Your task to perform on an android device: choose inbox layout in the gmail app Image 0: 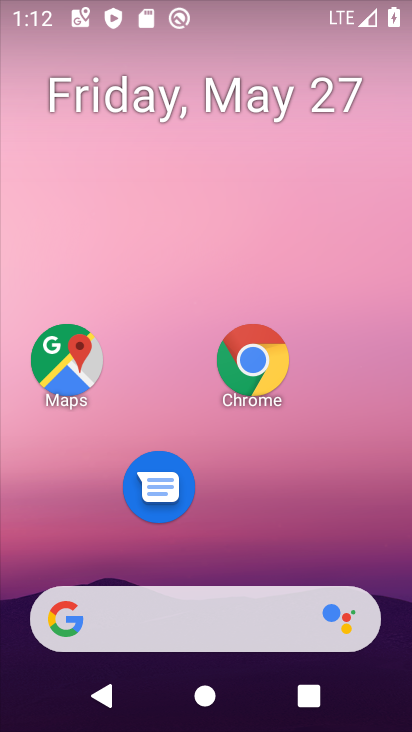
Step 0: drag from (270, 523) to (313, 73)
Your task to perform on an android device: choose inbox layout in the gmail app Image 1: 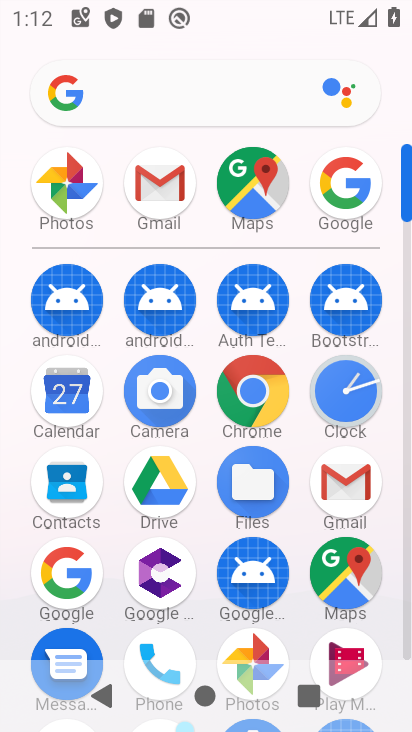
Step 1: click (160, 186)
Your task to perform on an android device: choose inbox layout in the gmail app Image 2: 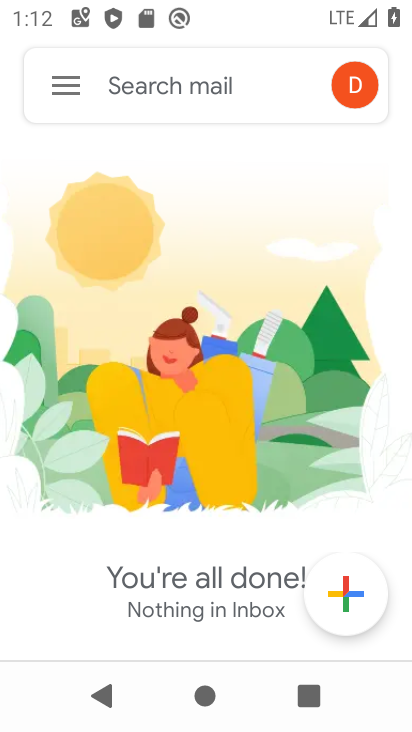
Step 2: click (60, 83)
Your task to perform on an android device: choose inbox layout in the gmail app Image 3: 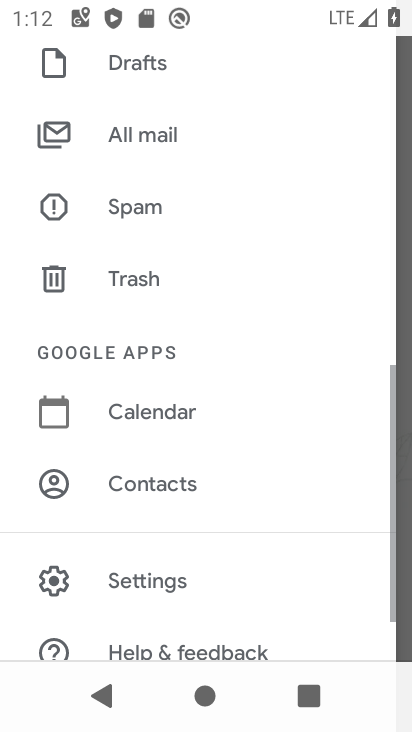
Step 3: click (136, 577)
Your task to perform on an android device: choose inbox layout in the gmail app Image 4: 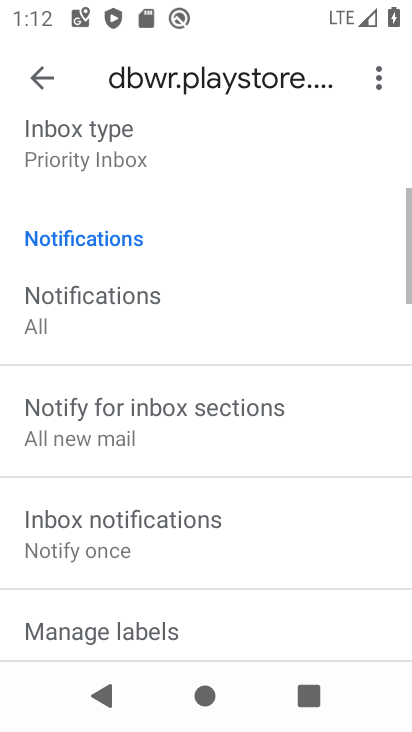
Step 4: click (195, 334)
Your task to perform on an android device: choose inbox layout in the gmail app Image 5: 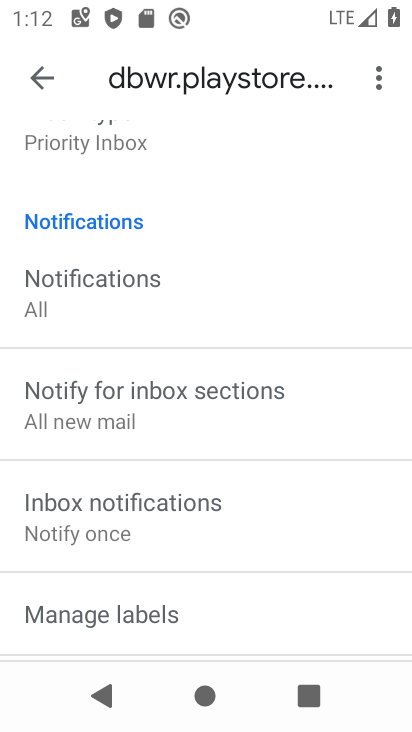
Step 5: drag from (130, 182) to (166, 446)
Your task to perform on an android device: choose inbox layout in the gmail app Image 6: 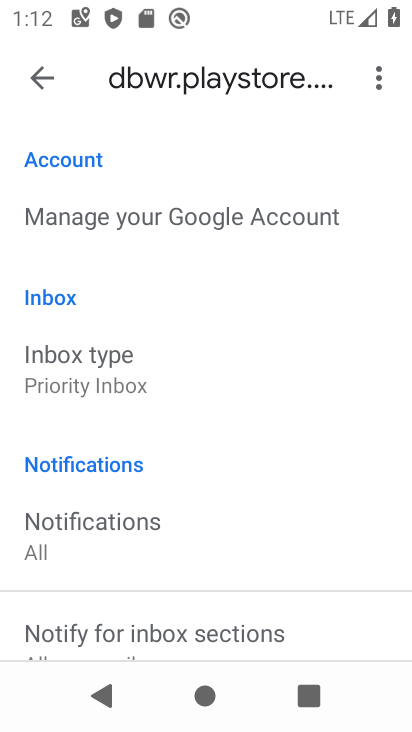
Step 6: click (103, 389)
Your task to perform on an android device: choose inbox layout in the gmail app Image 7: 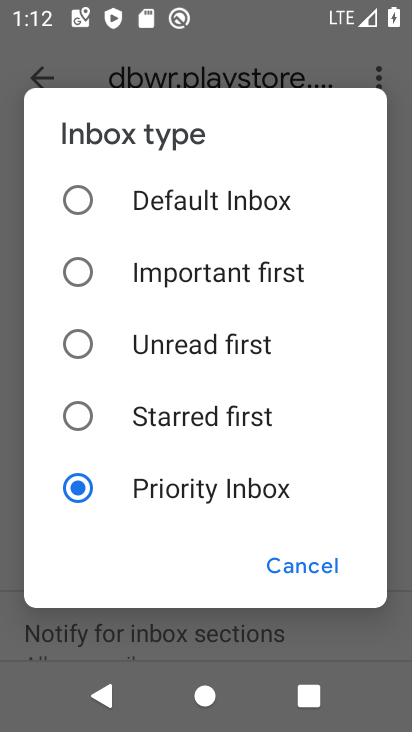
Step 7: click (96, 202)
Your task to perform on an android device: choose inbox layout in the gmail app Image 8: 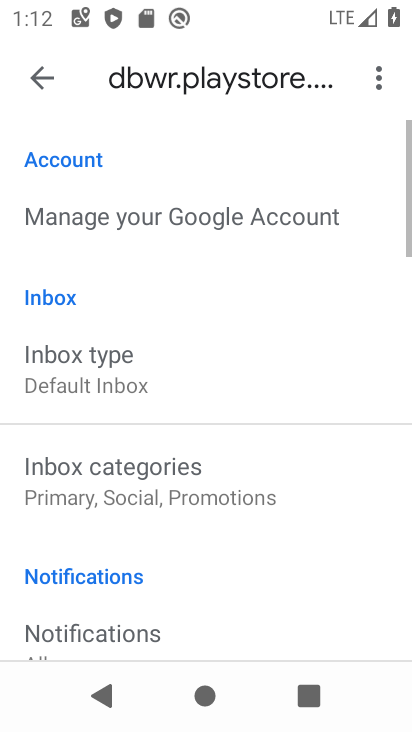
Step 8: task complete